Your task to perform on an android device: read, delete, or share a saved page in the chrome app Image 0: 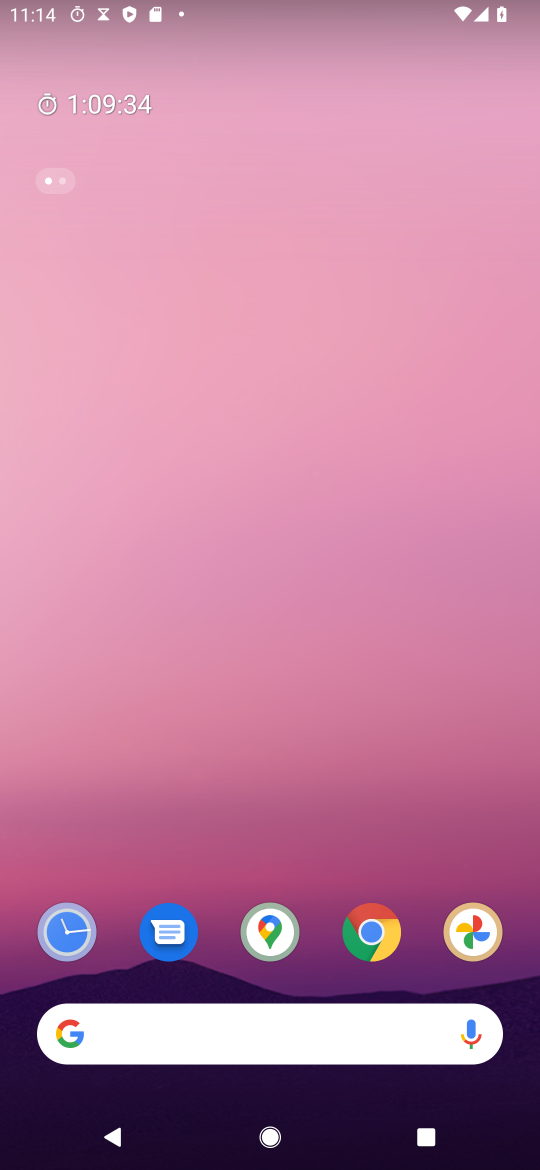
Step 0: drag from (346, 851) to (417, 18)
Your task to perform on an android device: read, delete, or share a saved page in the chrome app Image 1: 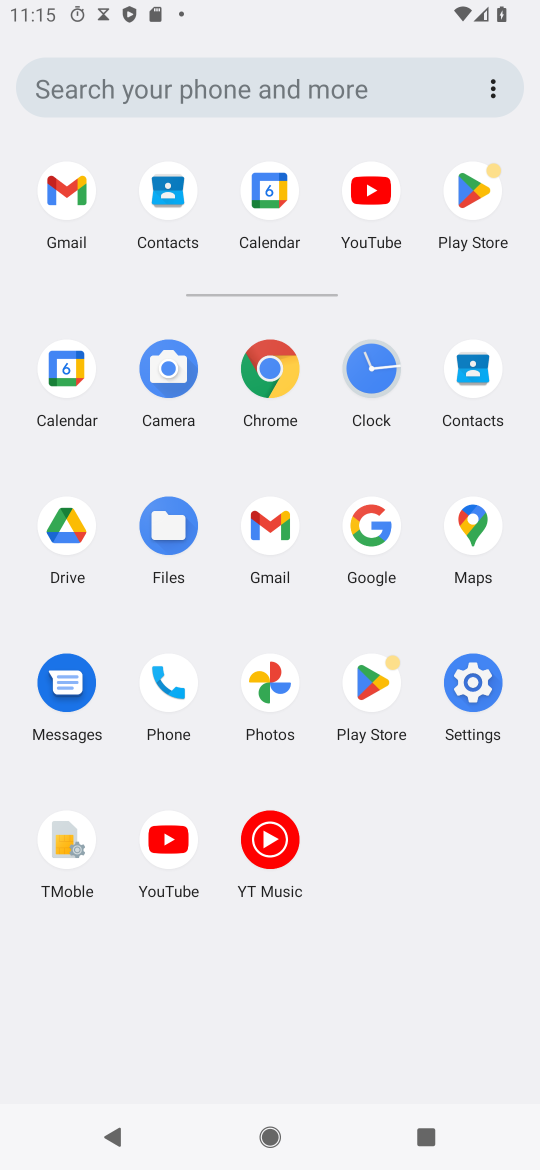
Step 1: click (280, 384)
Your task to perform on an android device: read, delete, or share a saved page in the chrome app Image 2: 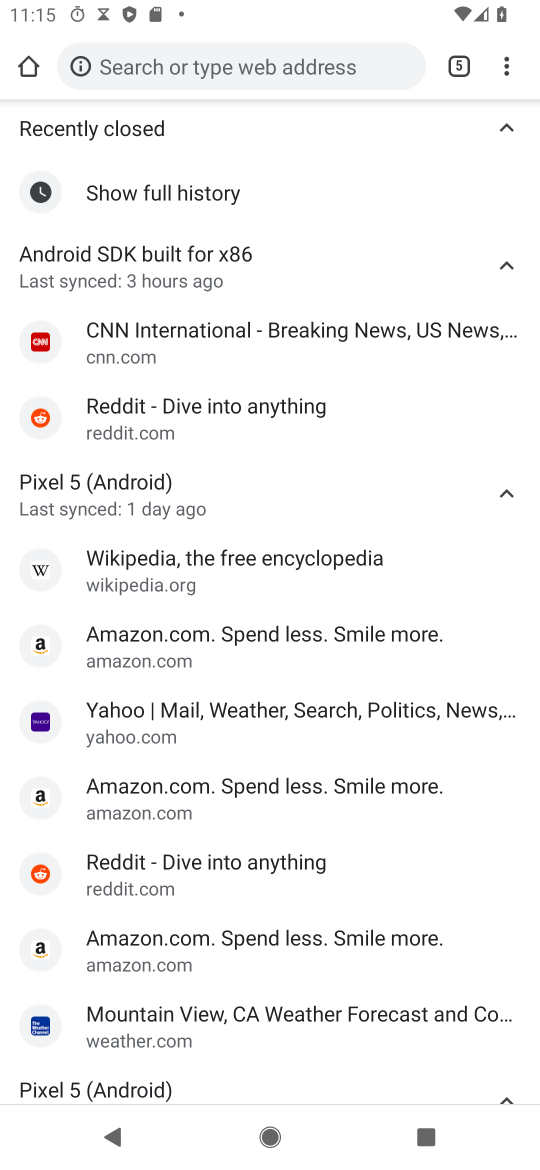
Step 2: click (512, 83)
Your task to perform on an android device: read, delete, or share a saved page in the chrome app Image 3: 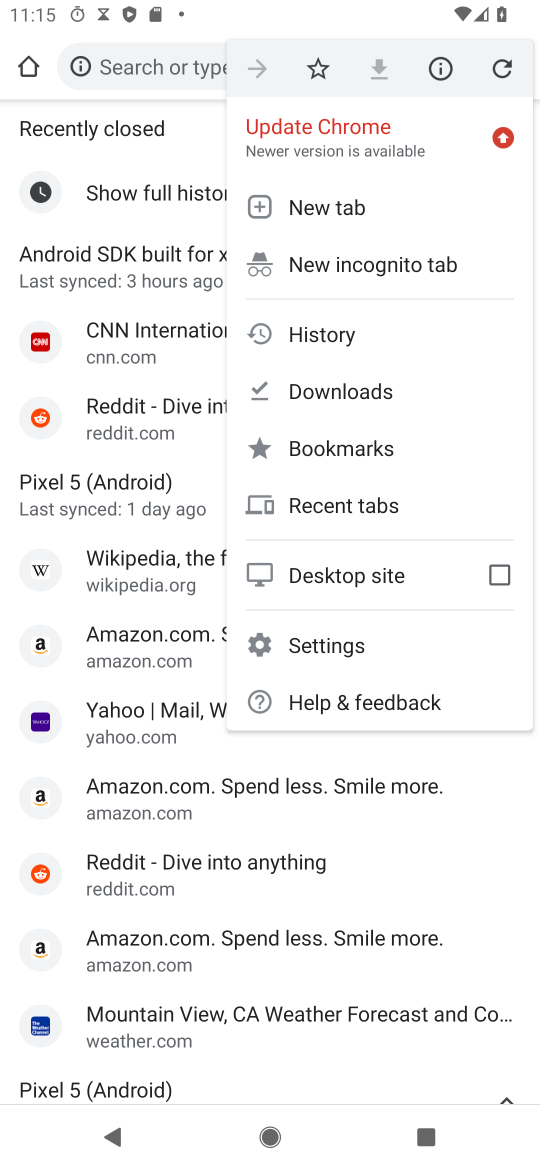
Step 3: click (331, 390)
Your task to perform on an android device: read, delete, or share a saved page in the chrome app Image 4: 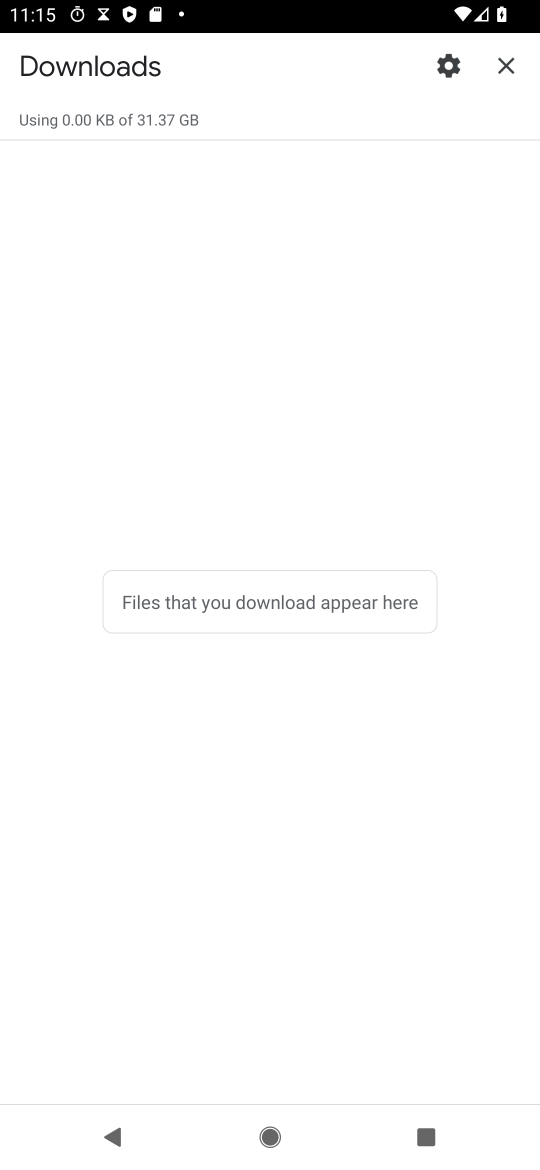
Step 4: task complete